Your task to perform on an android device: turn off wifi Image 0: 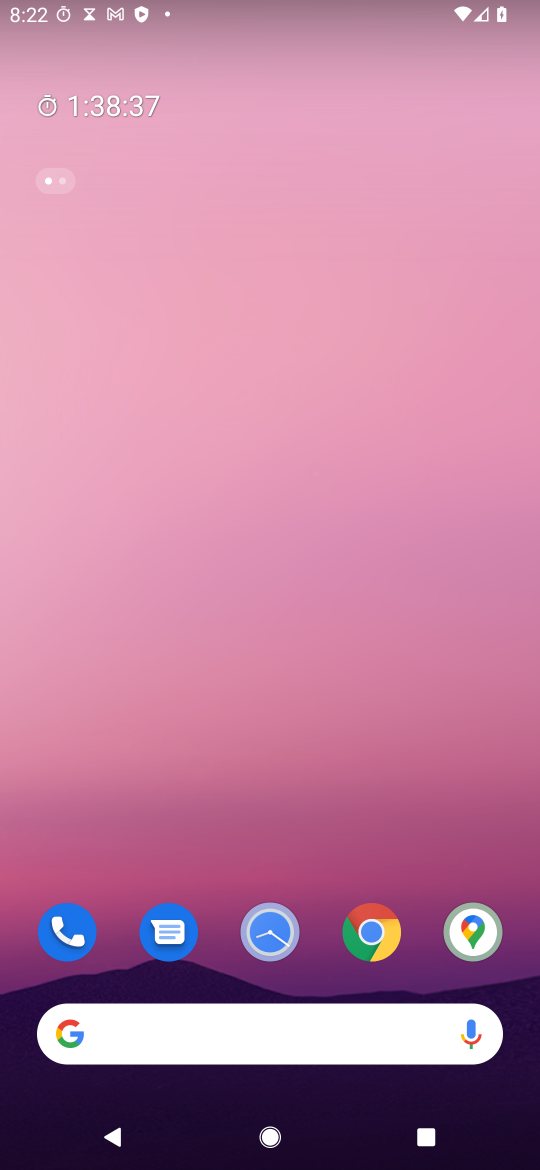
Step 0: drag from (189, 5) to (192, 641)
Your task to perform on an android device: turn off wifi Image 1: 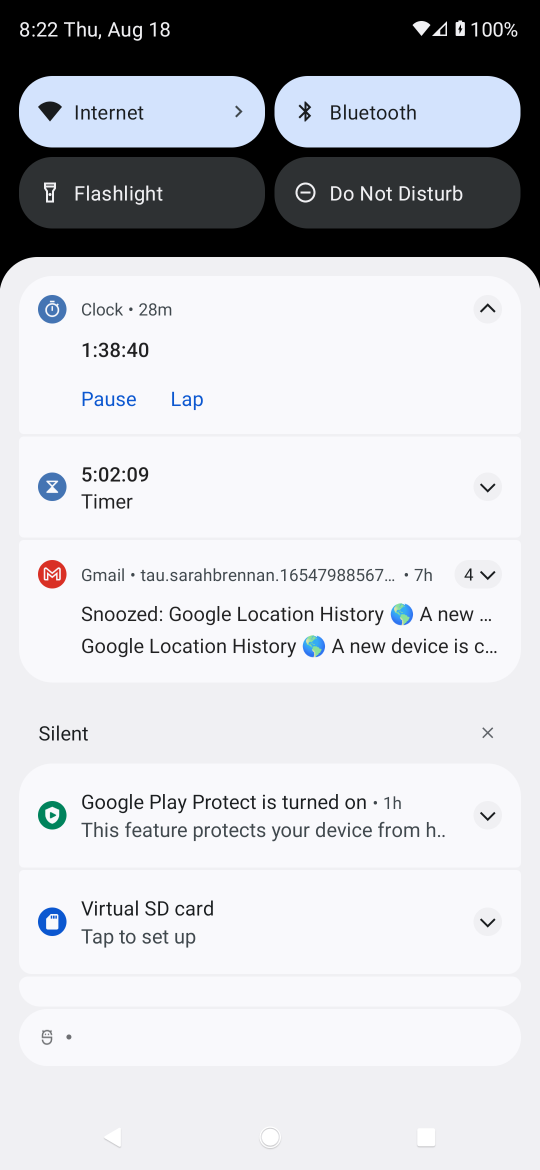
Step 1: click (169, 108)
Your task to perform on an android device: turn off wifi Image 2: 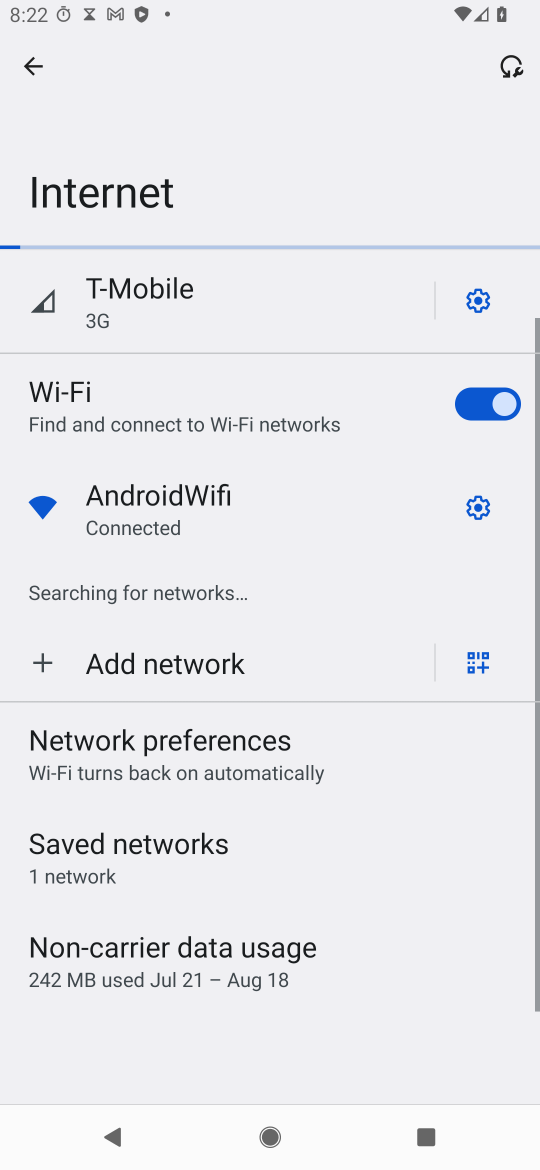
Step 2: click (492, 397)
Your task to perform on an android device: turn off wifi Image 3: 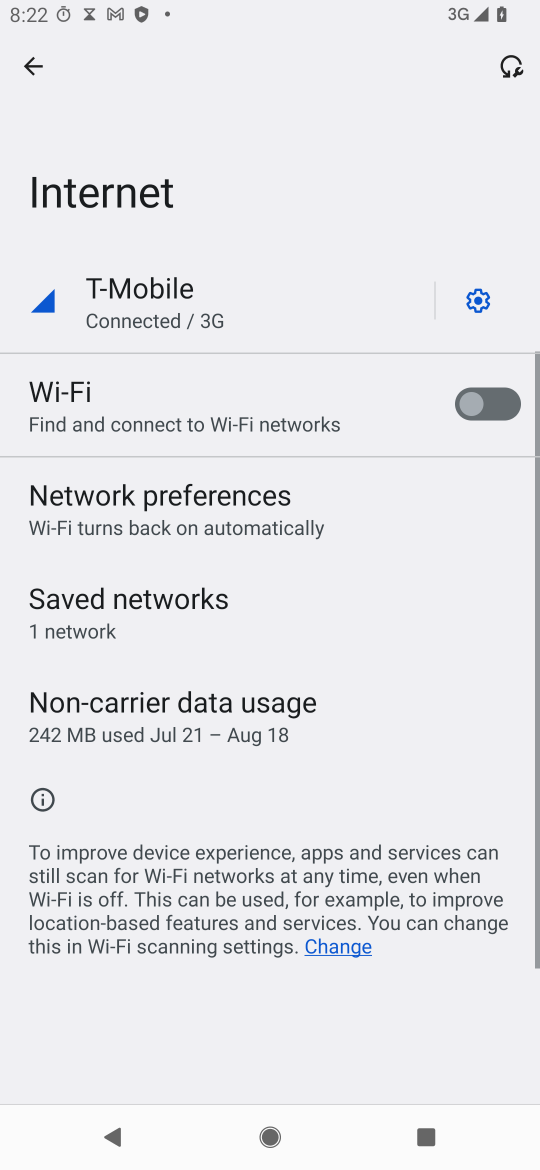
Step 3: task complete